Your task to perform on an android device: set the stopwatch Image 0: 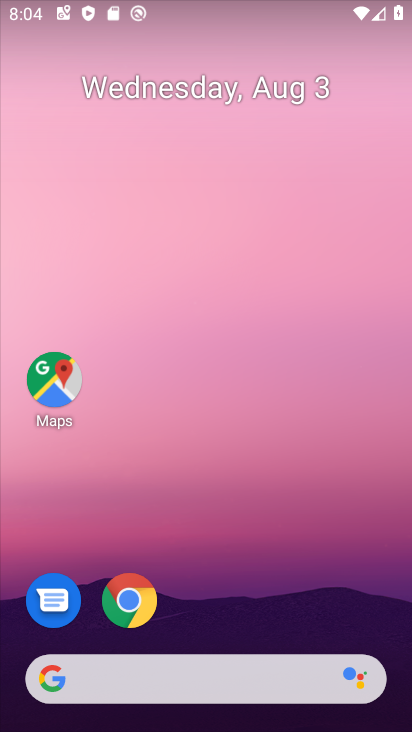
Step 0: drag from (232, 609) to (281, 172)
Your task to perform on an android device: set the stopwatch Image 1: 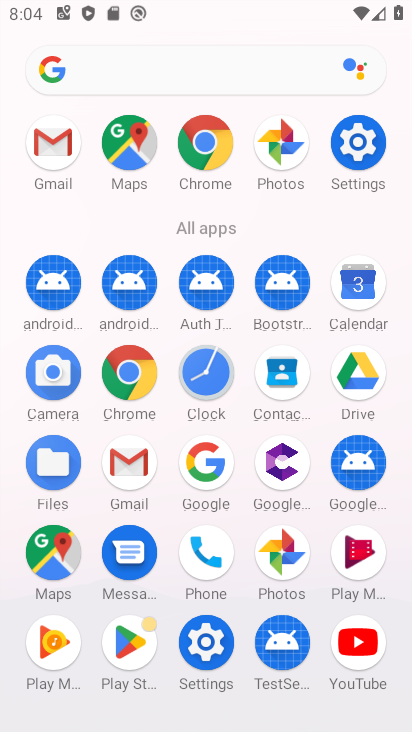
Step 1: click (205, 387)
Your task to perform on an android device: set the stopwatch Image 2: 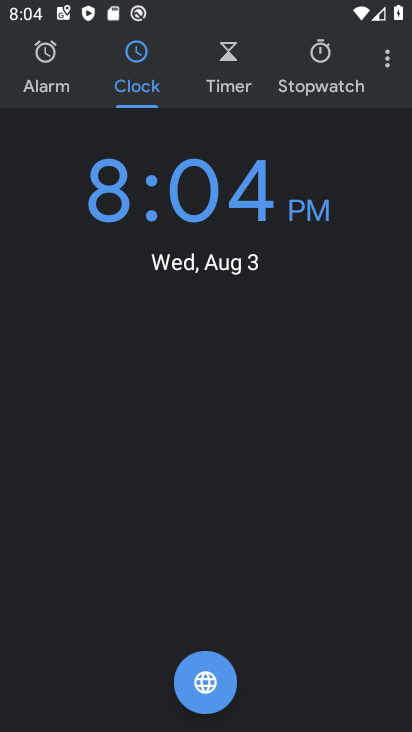
Step 2: click (321, 73)
Your task to perform on an android device: set the stopwatch Image 3: 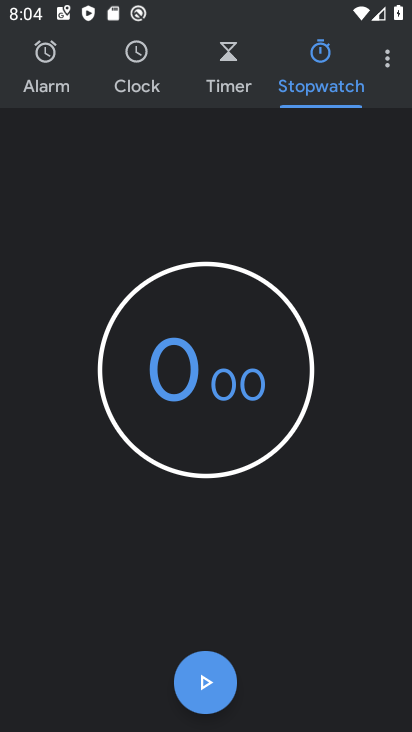
Step 3: click (189, 705)
Your task to perform on an android device: set the stopwatch Image 4: 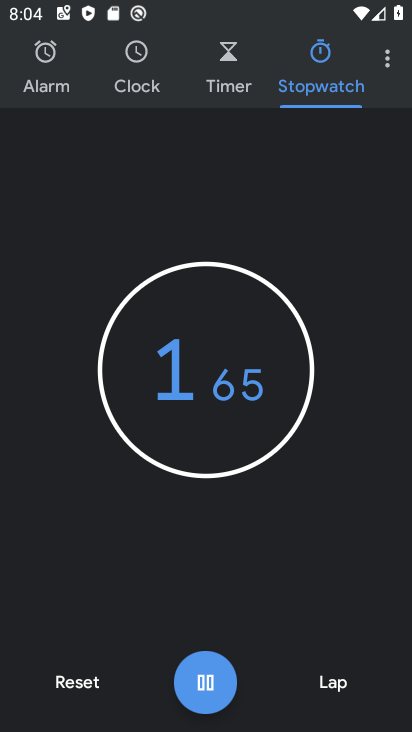
Step 4: task complete